Your task to perform on an android device: empty trash in google photos Image 0: 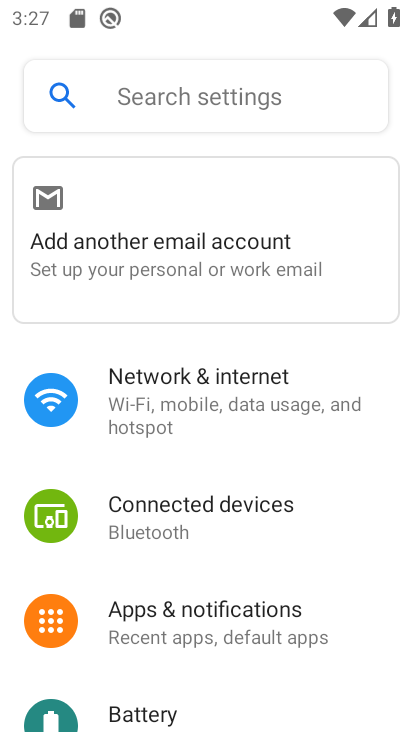
Step 0: press back button
Your task to perform on an android device: empty trash in google photos Image 1: 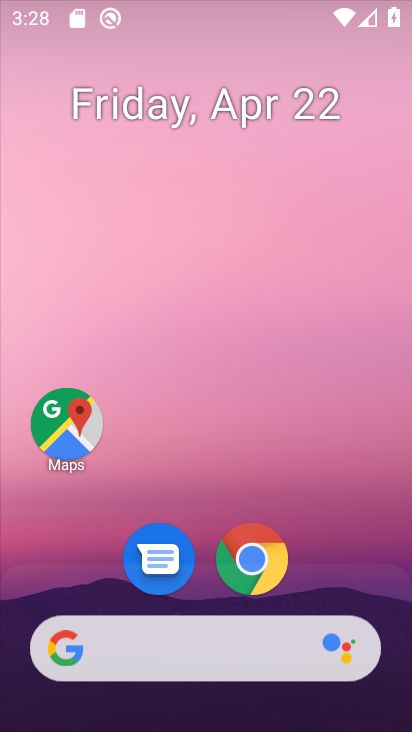
Step 1: drag from (188, 632) to (296, 80)
Your task to perform on an android device: empty trash in google photos Image 2: 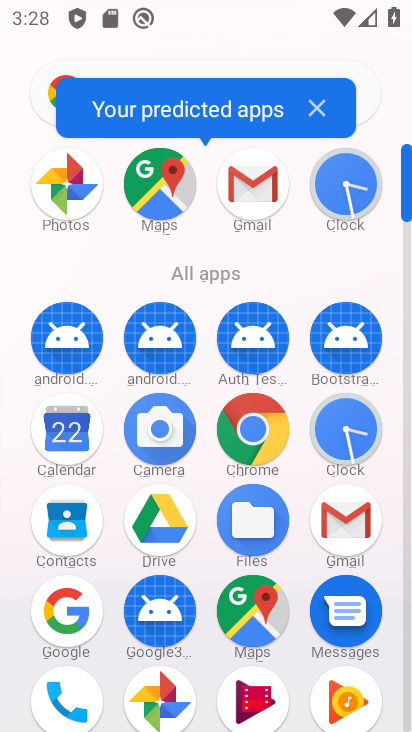
Step 2: click (169, 683)
Your task to perform on an android device: empty trash in google photos Image 3: 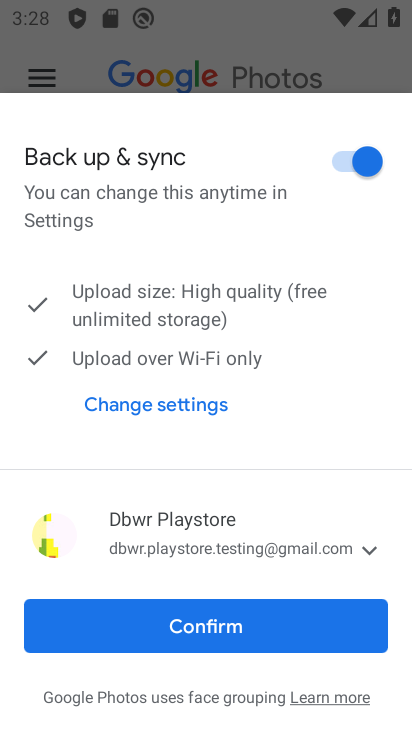
Step 3: click (212, 627)
Your task to perform on an android device: empty trash in google photos Image 4: 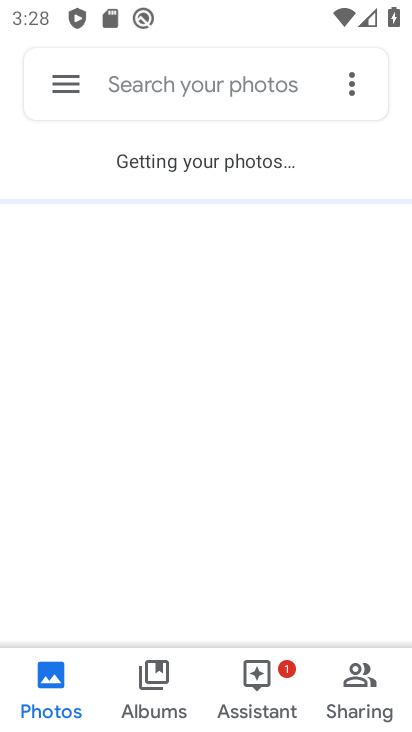
Step 4: click (68, 95)
Your task to perform on an android device: empty trash in google photos Image 5: 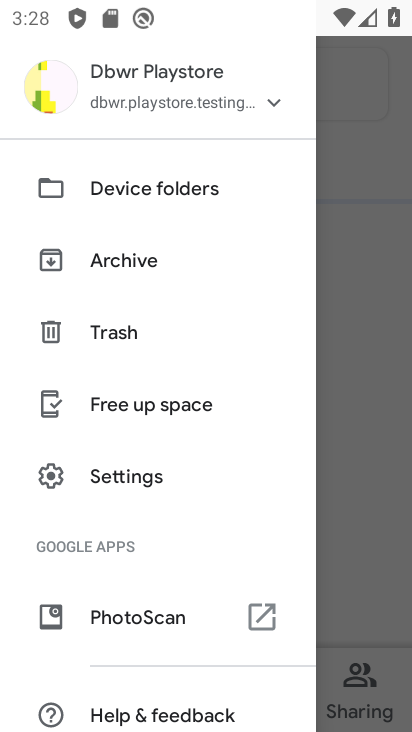
Step 5: click (130, 342)
Your task to perform on an android device: empty trash in google photos Image 6: 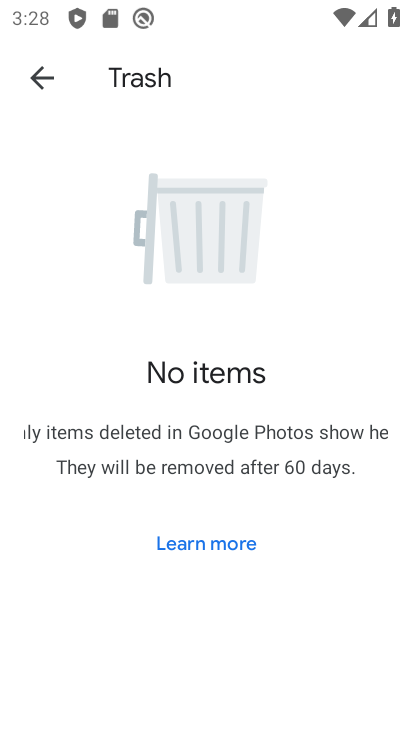
Step 6: task complete